Your task to perform on an android device: Open network settings Image 0: 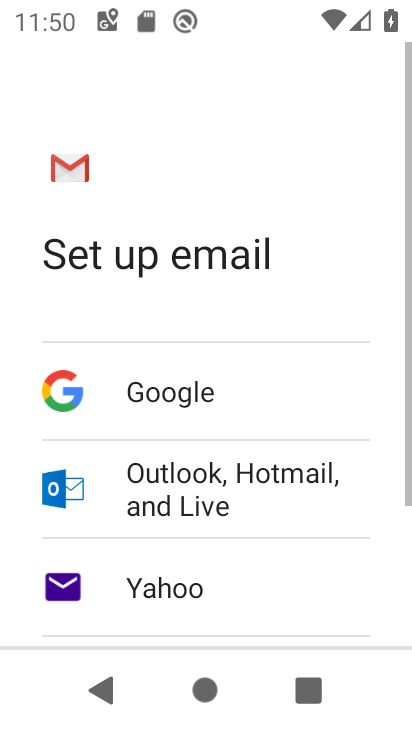
Step 0: press home button
Your task to perform on an android device: Open network settings Image 1: 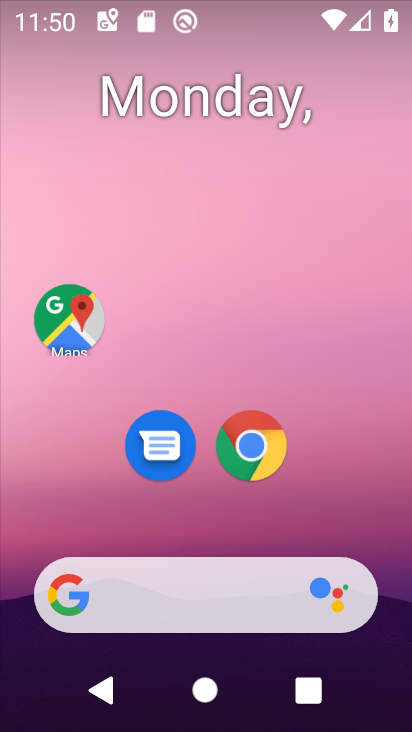
Step 1: drag from (316, 500) to (268, 84)
Your task to perform on an android device: Open network settings Image 2: 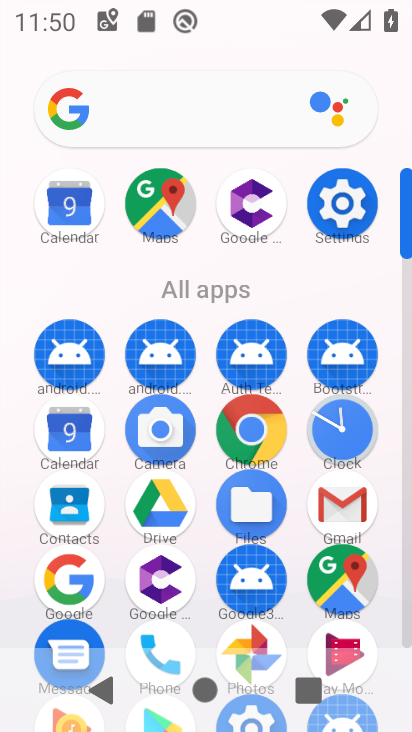
Step 2: click (346, 203)
Your task to perform on an android device: Open network settings Image 3: 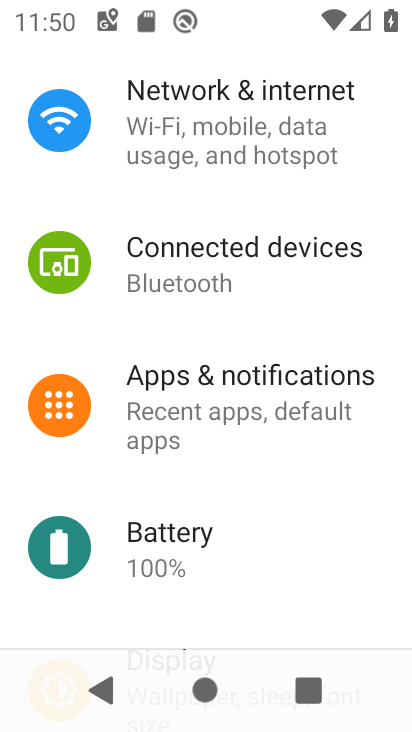
Step 3: click (207, 86)
Your task to perform on an android device: Open network settings Image 4: 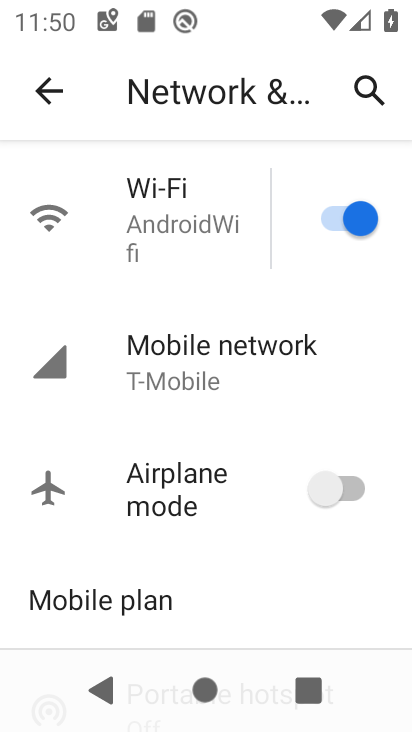
Step 4: click (202, 348)
Your task to perform on an android device: Open network settings Image 5: 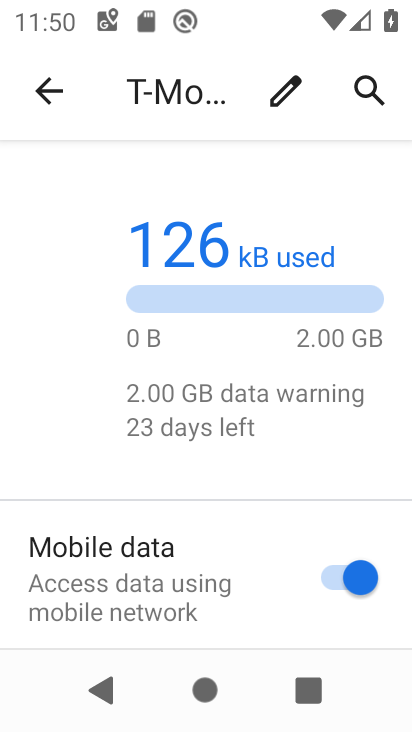
Step 5: task complete